Your task to perform on an android device: toggle javascript in the chrome app Image 0: 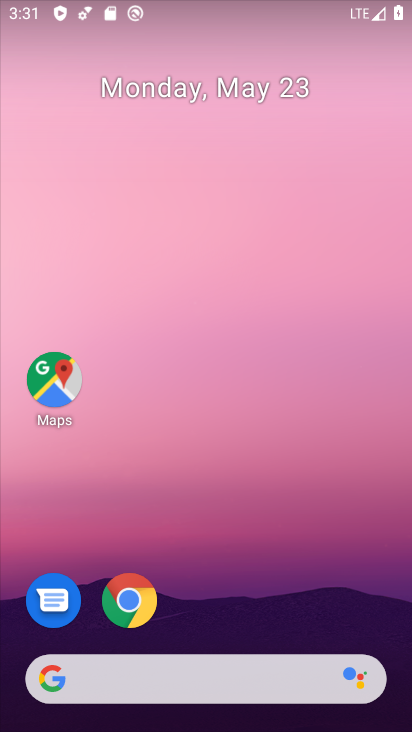
Step 0: click (143, 604)
Your task to perform on an android device: toggle javascript in the chrome app Image 1: 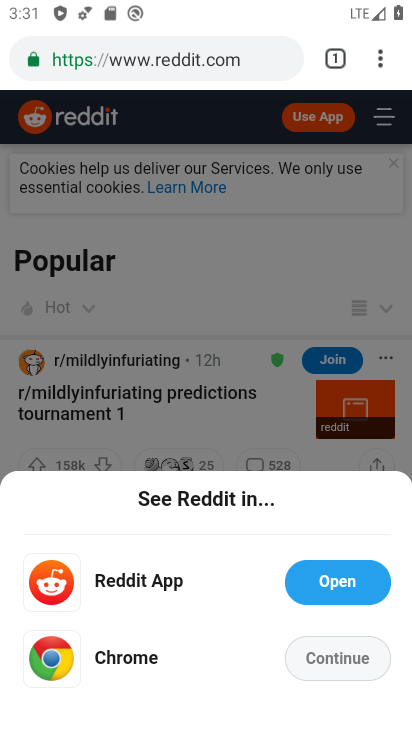
Step 1: click (378, 60)
Your task to perform on an android device: toggle javascript in the chrome app Image 2: 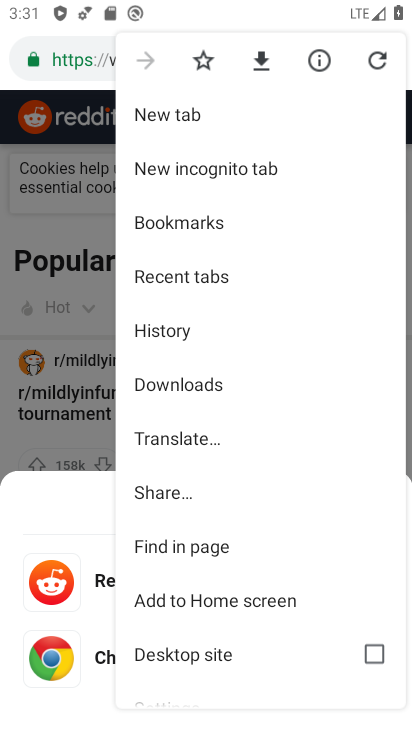
Step 2: drag from (279, 552) to (279, 237)
Your task to perform on an android device: toggle javascript in the chrome app Image 3: 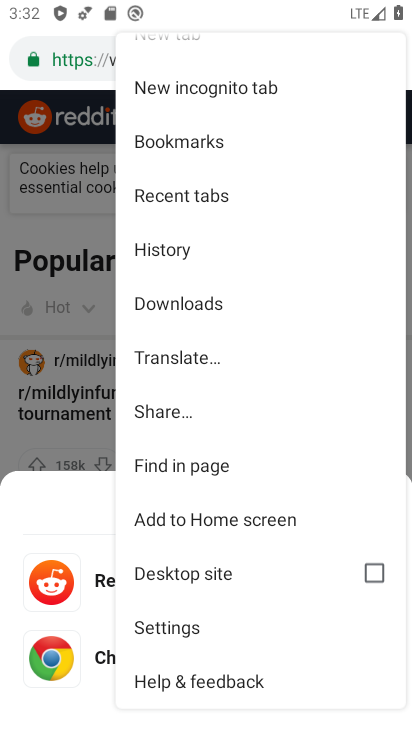
Step 3: click (160, 624)
Your task to perform on an android device: toggle javascript in the chrome app Image 4: 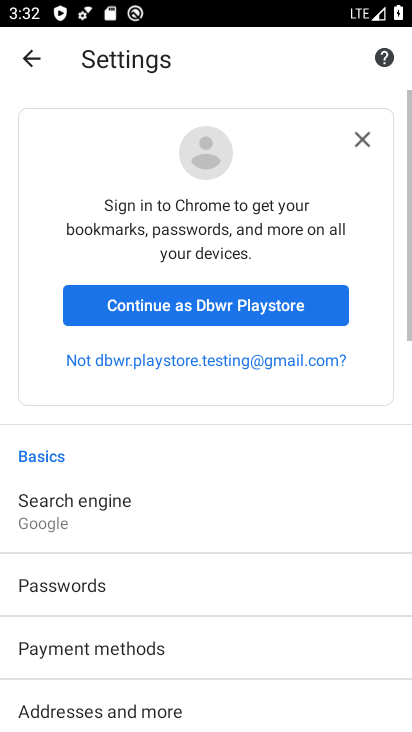
Step 4: drag from (168, 608) to (202, 150)
Your task to perform on an android device: toggle javascript in the chrome app Image 5: 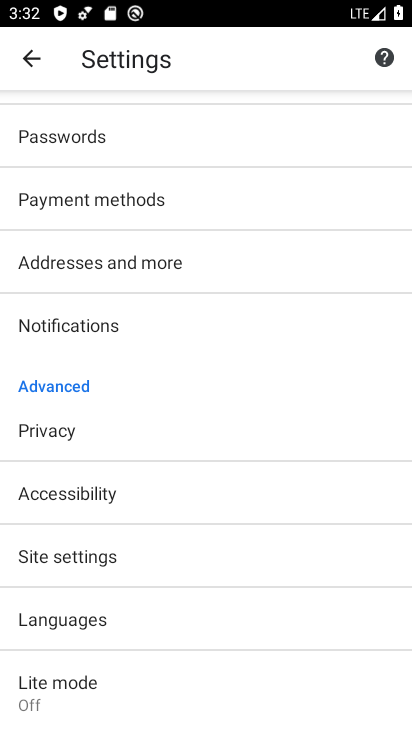
Step 5: click (118, 563)
Your task to perform on an android device: toggle javascript in the chrome app Image 6: 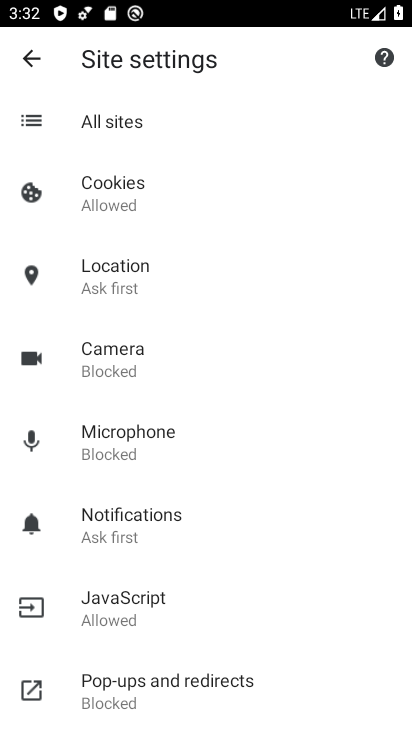
Step 6: click (149, 596)
Your task to perform on an android device: toggle javascript in the chrome app Image 7: 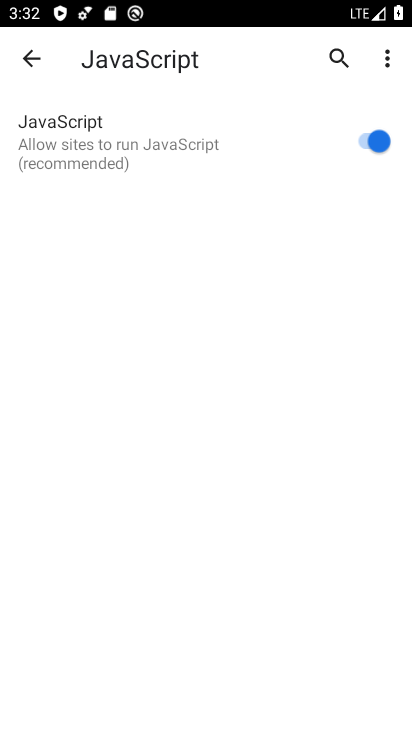
Step 7: click (389, 146)
Your task to perform on an android device: toggle javascript in the chrome app Image 8: 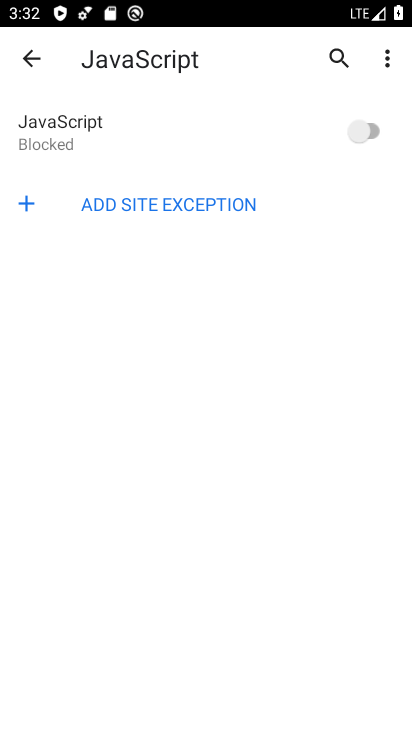
Step 8: task complete